Your task to perform on an android device: turn on priority inbox in the gmail app Image 0: 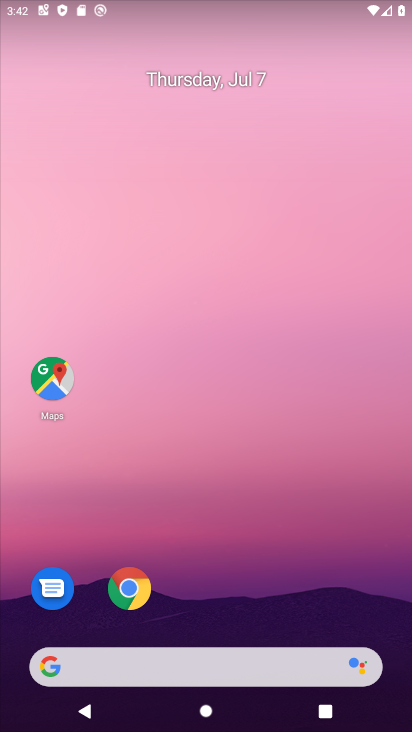
Step 0: drag from (282, 665) to (291, 296)
Your task to perform on an android device: turn on priority inbox in the gmail app Image 1: 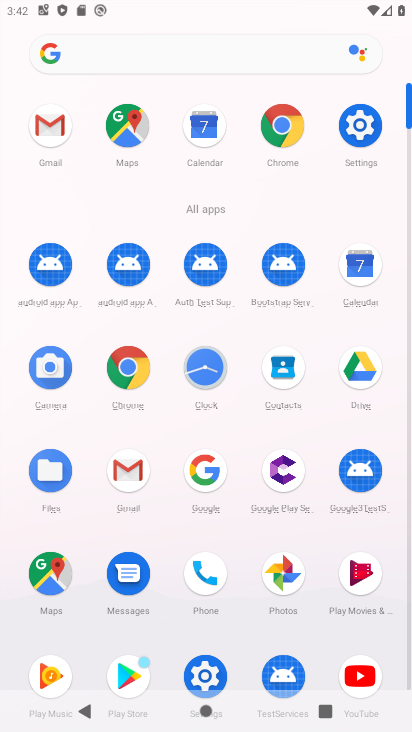
Step 1: click (135, 449)
Your task to perform on an android device: turn on priority inbox in the gmail app Image 2: 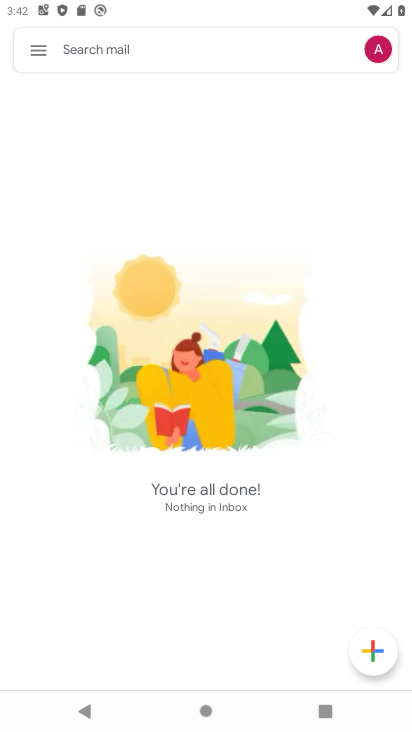
Step 2: click (36, 48)
Your task to perform on an android device: turn on priority inbox in the gmail app Image 3: 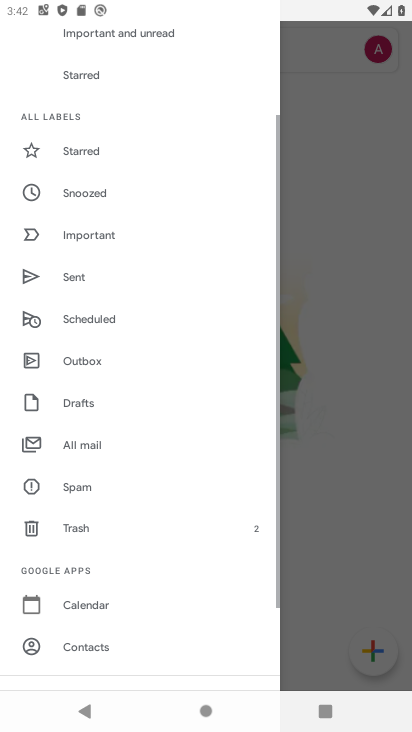
Step 3: drag from (105, 620) to (134, 279)
Your task to perform on an android device: turn on priority inbox in the gmail app Image 4: 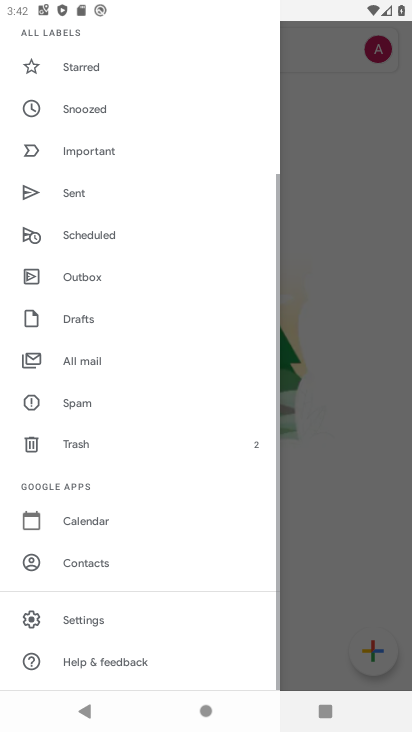
Step 4: click (76, 620)
Your task to perform on an android device: turn on priority inbox in the gmail app Image 5: 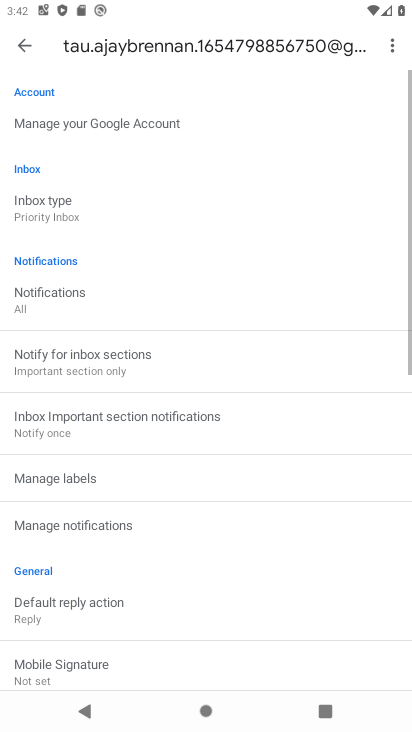
Step 5: drag from (217, 654) to (235, 441)
Your task to perform on an android device: turn on priority inbox in the gmail app Image 6: 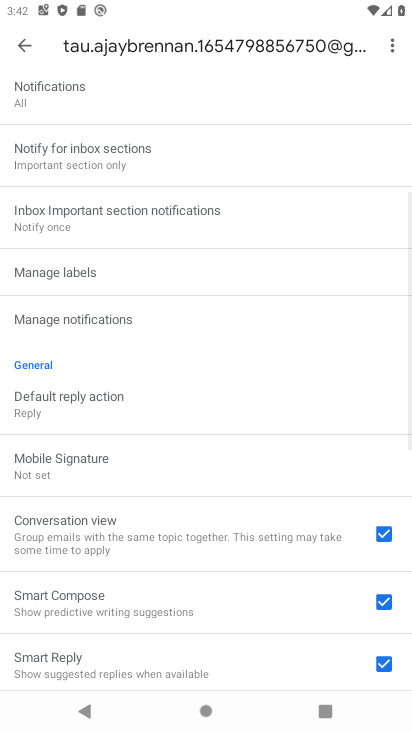
Step 6: drag from (150, 257) to (144, 518)
Your task to perform on an android device: turn on priority inbox in the gmail app Image 7: 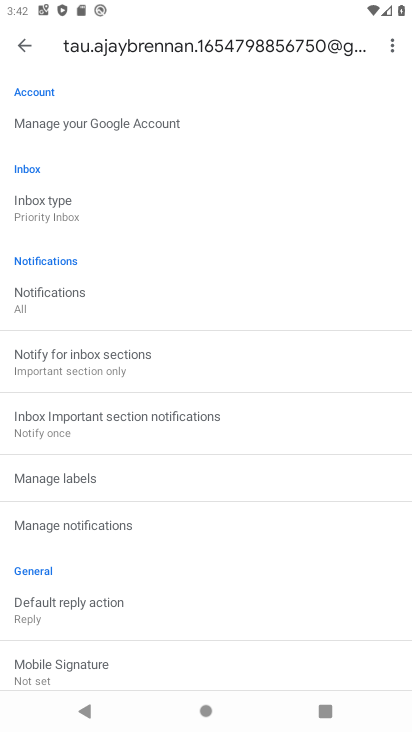
Step 7: press home button
Your task to perform on an android device: turn on priority inbox in the gmail app Image 8: 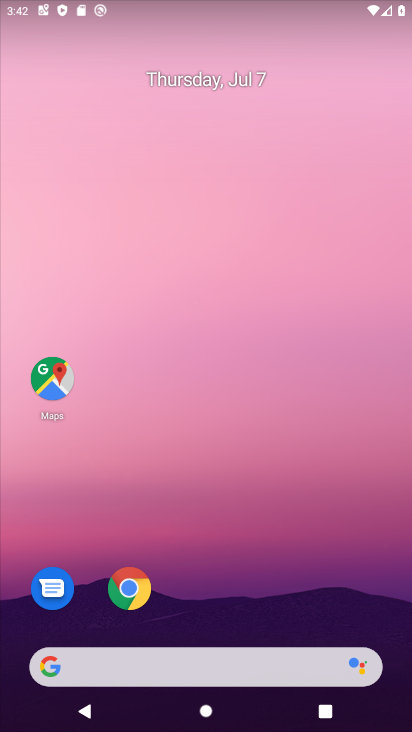
Step 8: drag from (173, 609) to (286, 16)
Your task to perform on an android device: turn on priority inbox in the gmail app Image 9: 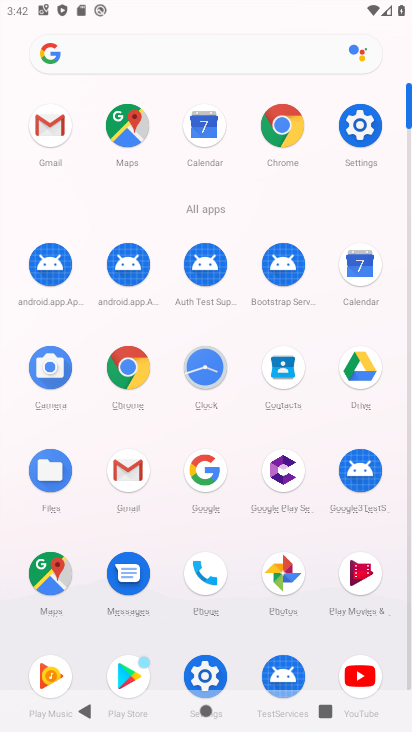
Step 9: click (126, 480)
Your task to perform on an android device: turn on priority inbox in the gmail app Image 10: 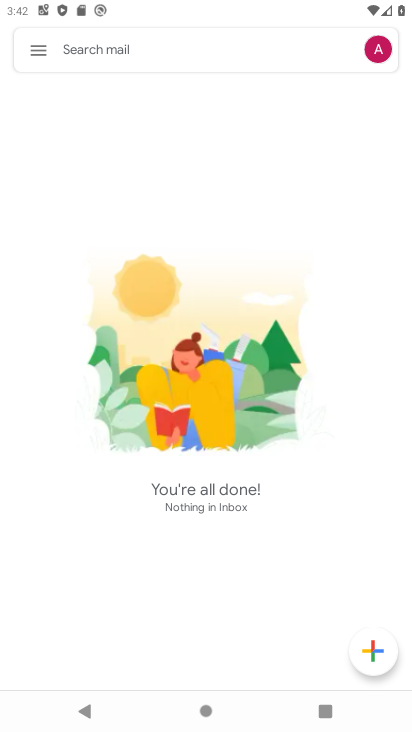
Step 10: click (31, 52)
Your task to perform on an android device: turn on priority inbox in the gmail app Image 11: 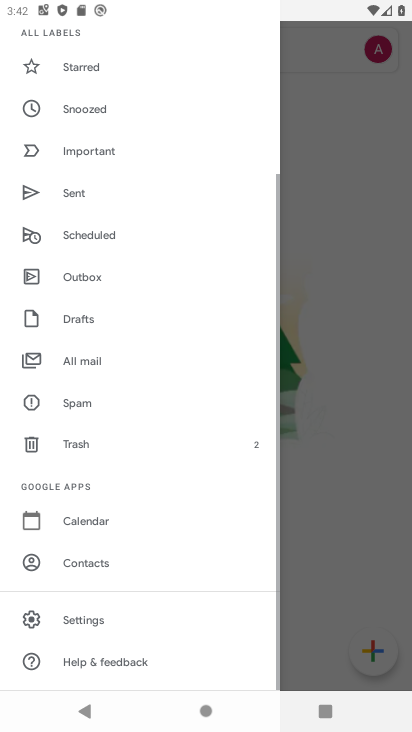
Step 11: click (97, 625)
Your task to perform on an android device: turn on priority inbox in the gmail app Image 12: 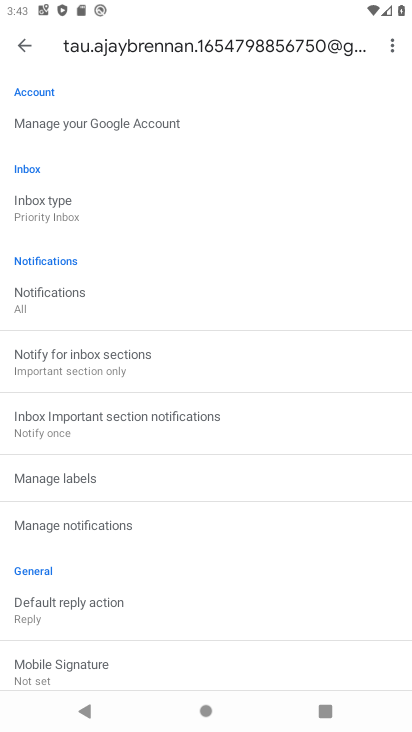
Step 12: task complete